Your task to perform on an android device: add a contact Image 0: 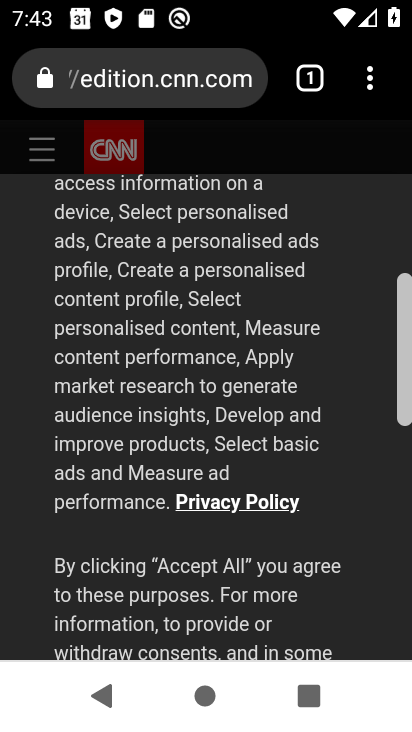
Step 0: press home button
Your task to perform on an android device: add a contact Image 1: 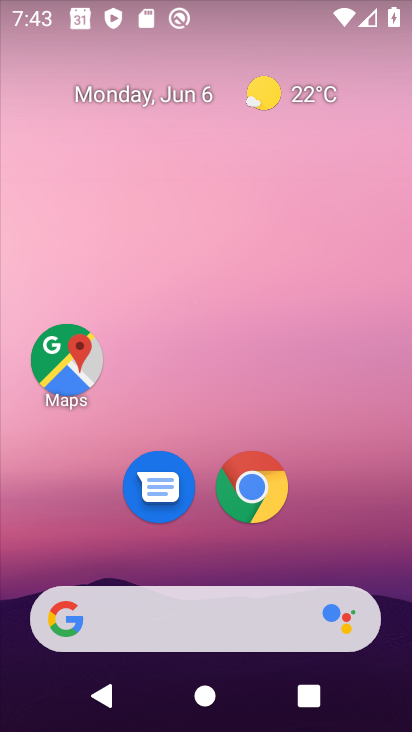
Step 1: drag from (346, 526) to (348, 234)
Your task to perform on an android device: add a contact Image 2: 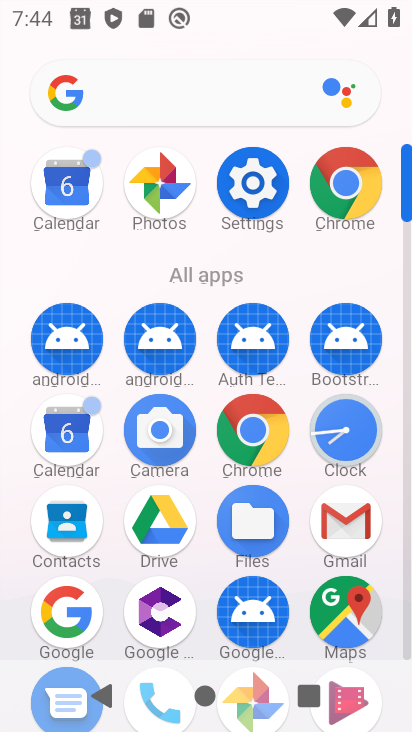
Step 2: click (71, 545)
Your task to perform on an android device: add a contact Image 3: 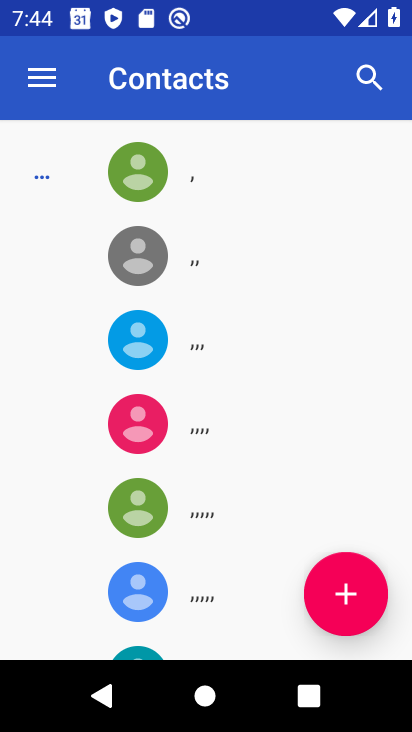
Step 3: click (348, 596)
Your task to perform on an android device: add a contact Image 4: 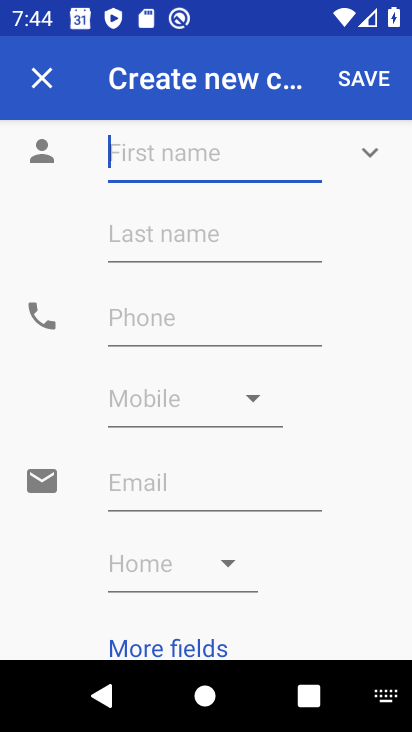
Step 4: type "shib"
Your task to perform on an android device: add a contact Image 5: 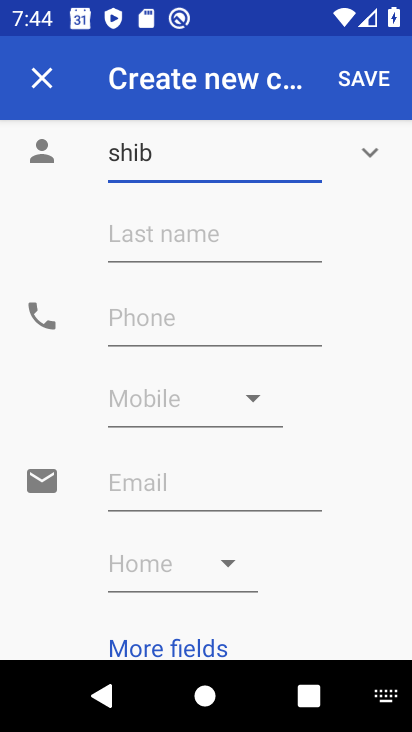
Step 5: click (281, 336)
Your task to perform on an android device: add a contact Image 6: 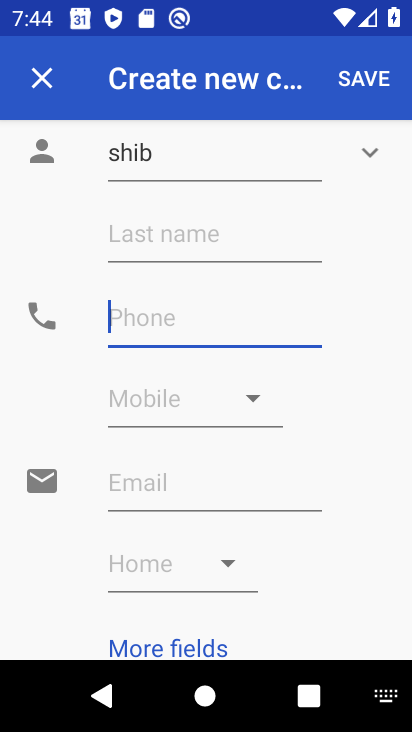
Step 6: type "2938794749"
Your task to perform on an android device: add a contact Image 7: 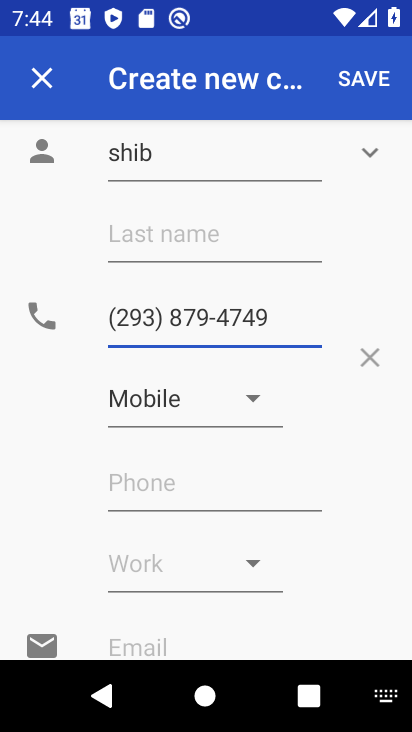
Step 7: click (383, 83)
Your task to perform on an android device: add a contact Image 8: 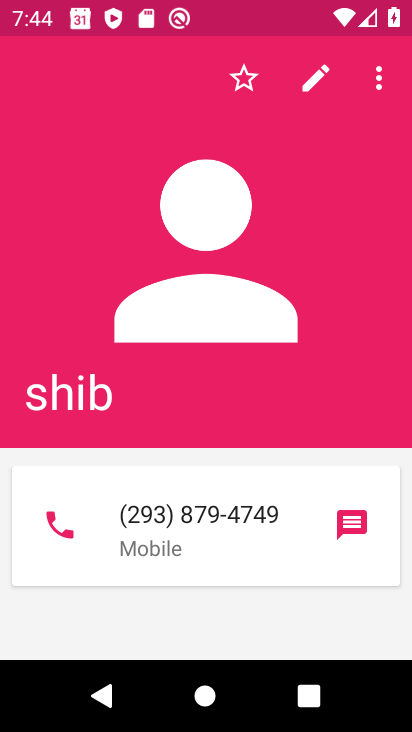
Step 8: task complete